Your task to perform on an android device: move a message to another label in the gmail app Image 0: 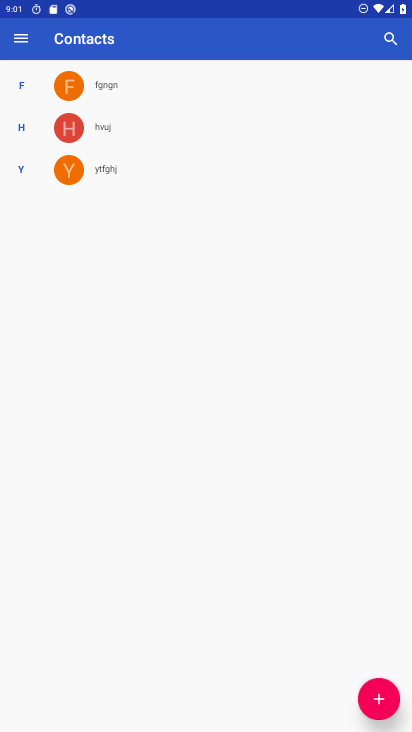
Step 0: press home button
Your task to perform on an android device: move a message to another label in the gmail app Image 1: 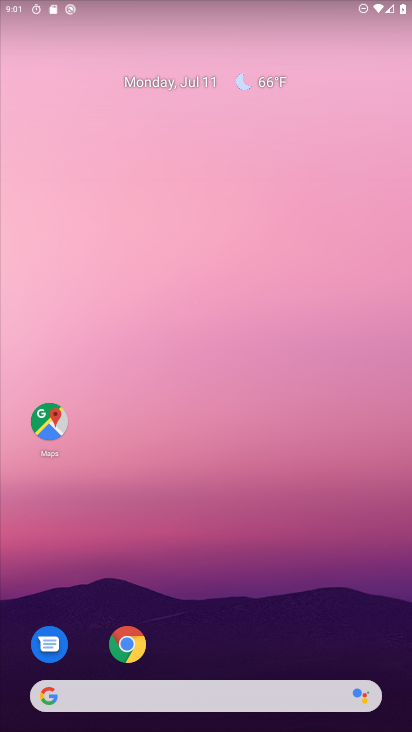
Step 1: drag from (287, 608) to (344, 149)
Your task to perform on an android device: move a message to another label in the gmail app Image 2: 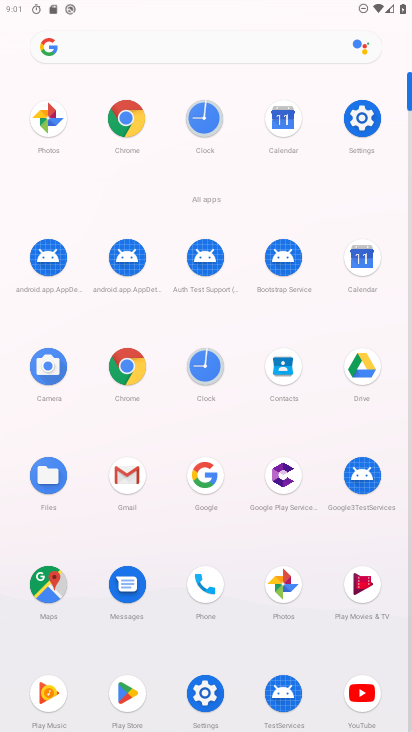
Step 2: click (125, 470)
Your task to perform on an android device: move a message to another label in the gmail app Image 3: 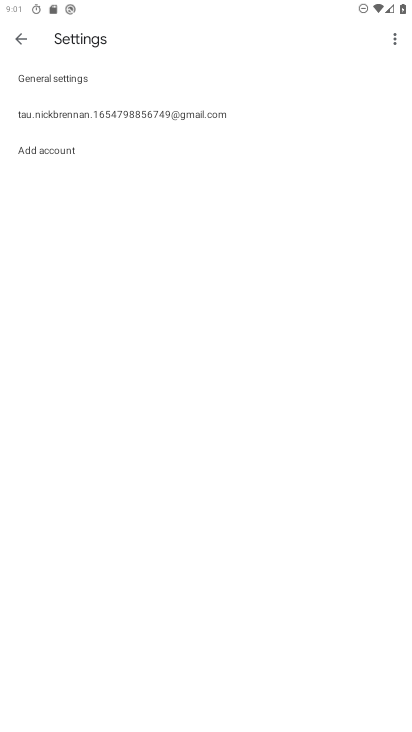
Step 3: click (153, 109)
Your task to perform on an android device: move a message to another label in the gmail app Image 4: 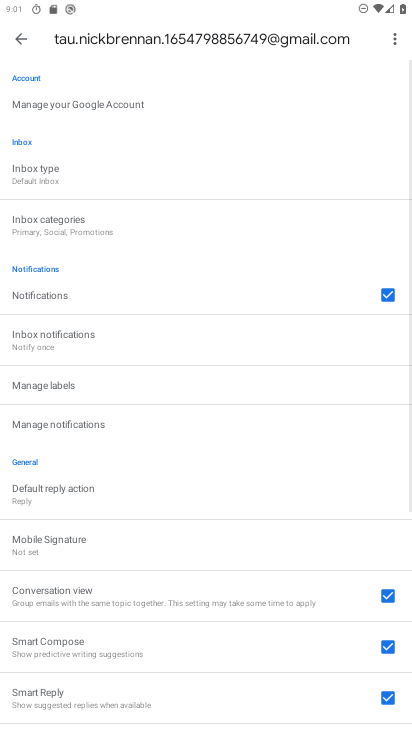
Step 4: click (20, 39)
Your task to perform on an android device: move a message to another label in the gmail app Image 5: 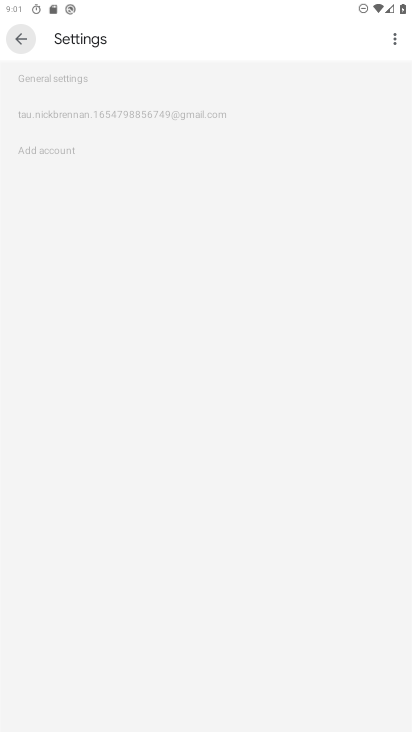
Step 5: click (20, 39)
Your task to perform on an android device: move a message to another label in the gmail app Image 6: 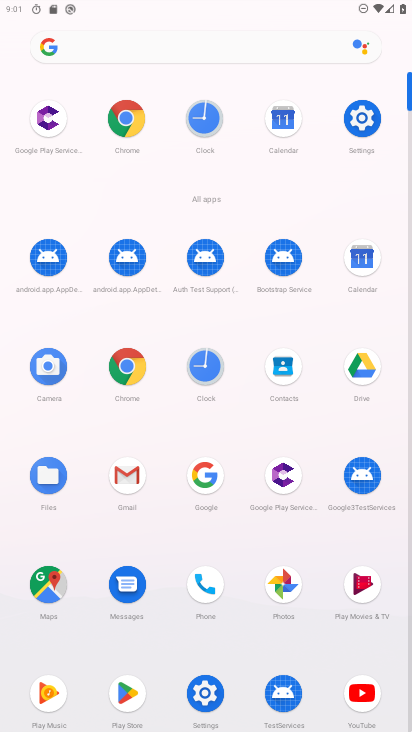
Step 6: click (133, 474)
Your task to perform on an android device: move a message to another label in the gmail app Image 7: 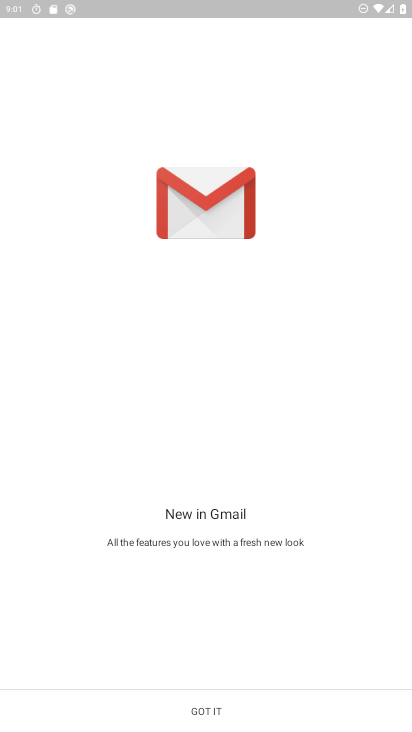
Step 7: click (217, 715)
Your task to perform on an android device: move a message to another label in the gmail app Image 8: 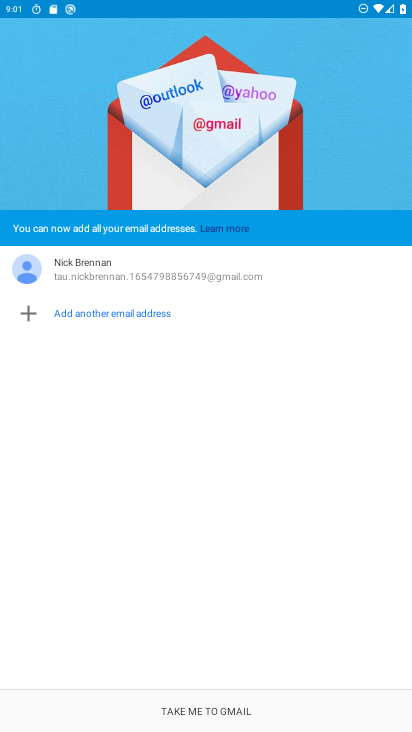
Step 8: click (218, 699)
Your task to perform on an android device: move a message to another label in the gmail app Image 9: 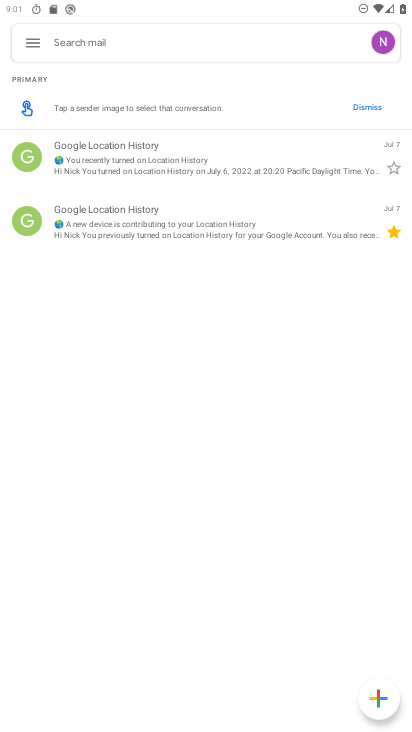
Step 9: click (179, 153)
Your task to perform on an android device: move a message to another label in the gmail app Image 10: 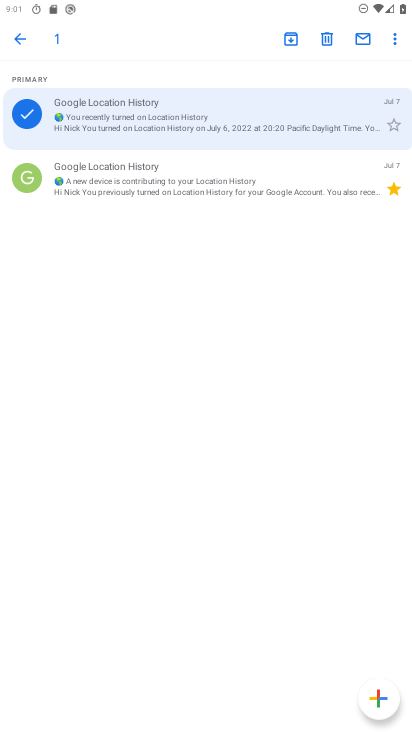
Step 10: click (394, 41)
Your task to perform on an android device: move a message to another label in the gmail app Image 11: 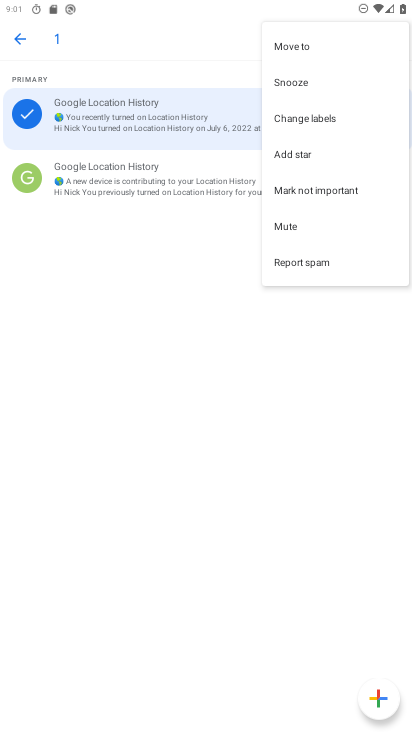
Step 11: click (293, 122)
Your task to perform on an android device: move a message to another label in the gmail app Image 12: 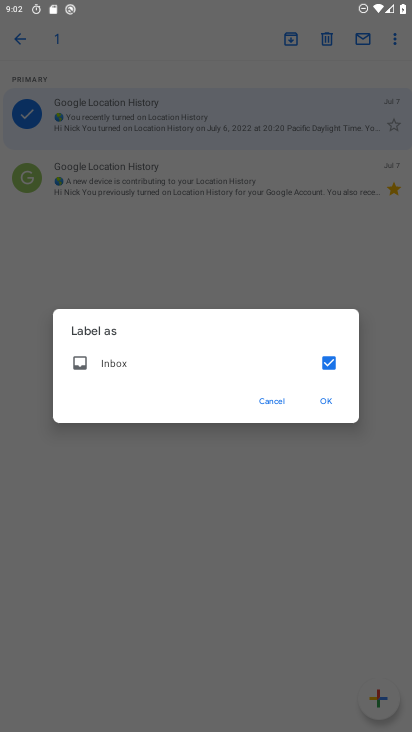
Step 12: task complete